Your task to perform on an android device: Open Google Chrome and click the shortcut for Amazon.com Image 0: 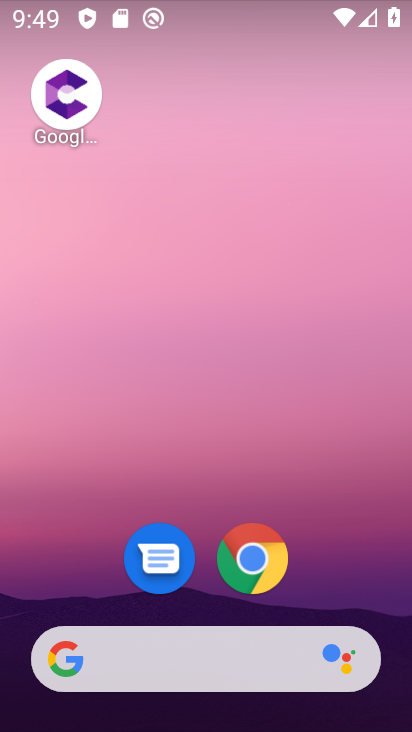
Step 0: click (253, 558)
Your task to perform on an android device: Open Google Chrome and click the shortcut for Amazon.com Image 1: 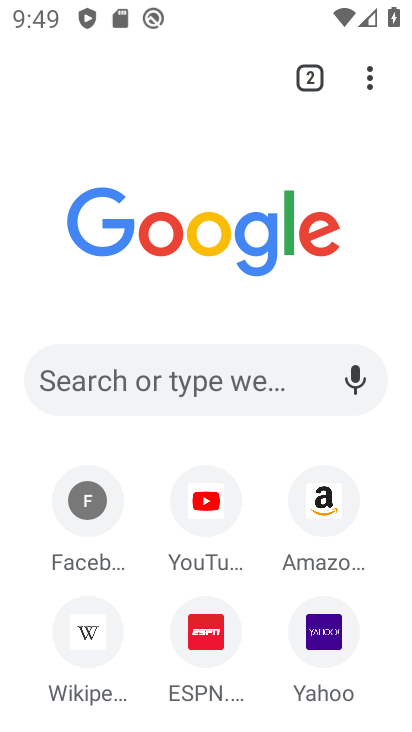
Step 1: click (329, 505)
Your task to perform on an android device: Open Google Chrome and click the shortcut for Amazon.com Image 2: 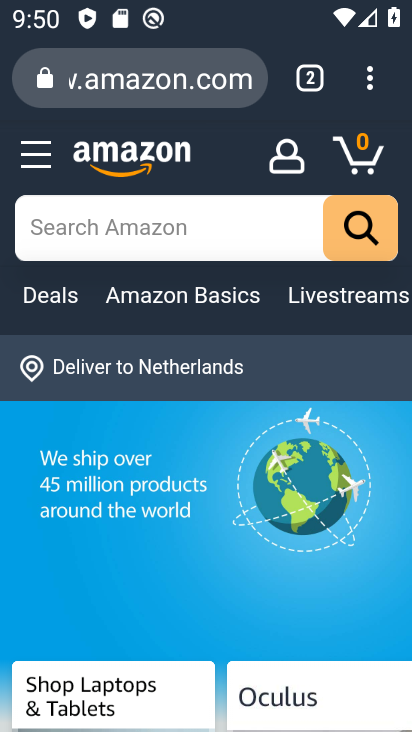
Step 2: task complete